Your task to perform on an android device: change the clock display to show seconds Image 0: 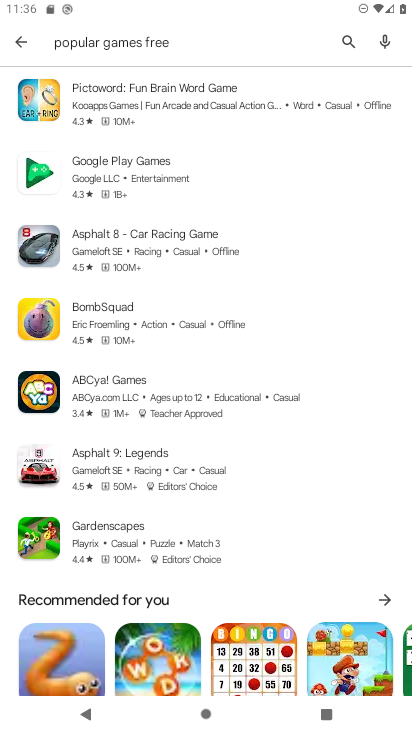
Step 0: press home button
Your task to perform on an android device: change the clock display to show seconds Image 1: 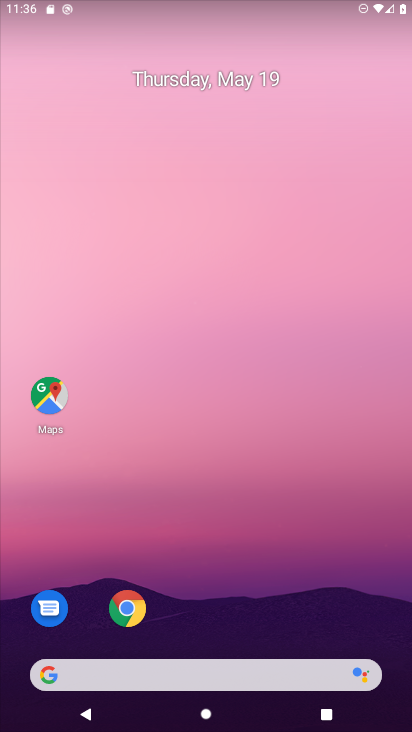
Step 1: drag from (306, 597) to (281, 140)
Your task to perform on an android device: change the clock display to show seconds Image 2: 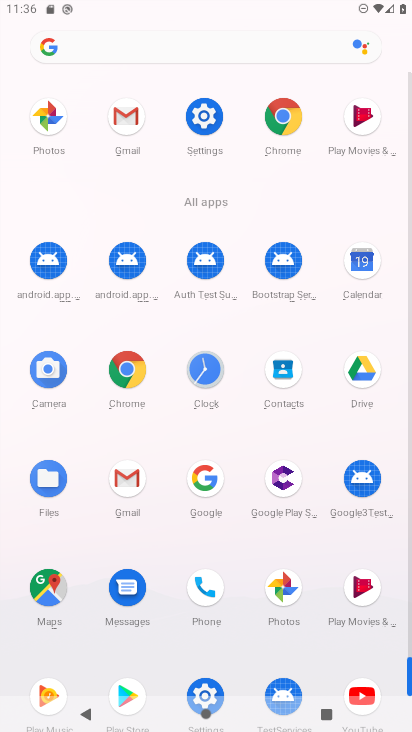
Step 2: click (213, 371)
Your task to perform on an android device: change the clock display to show seconds Image 3: 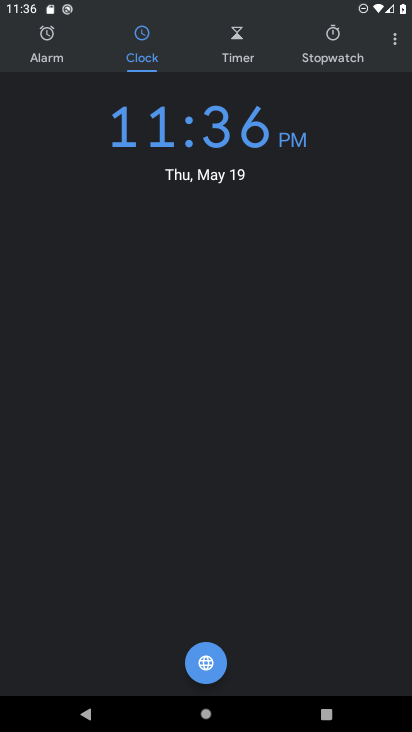
Step 3: click (400, 51)
Your task to perform on an android device: change the clock display to show seconds Image 4: 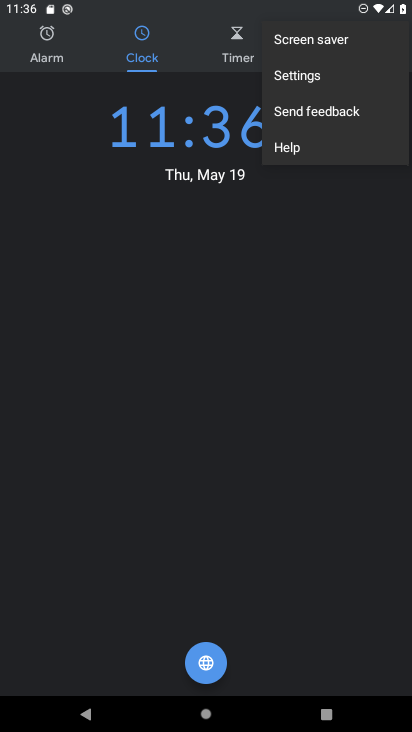
Step 4: click (318, 84)
Your task to perform on an android device: change the clock display to show seconds Image 5: 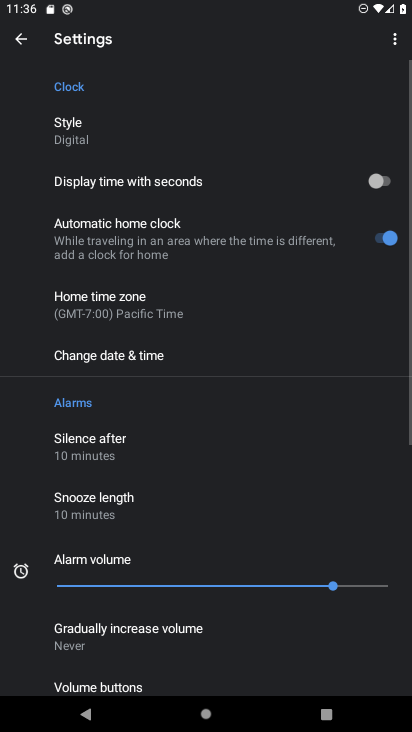
Step 5: click (363, 181)
Your task to perform on an android device: change the clock display to show seconds Image 6: 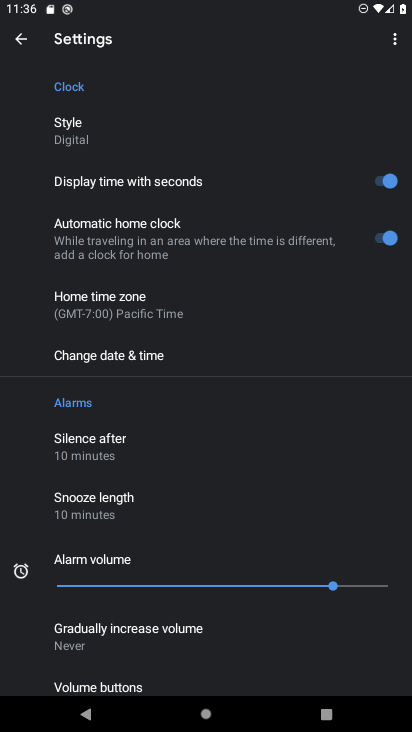
Step 6: task complete